Your task to perform on an android device: open a new tab in the chrome app Image 0: 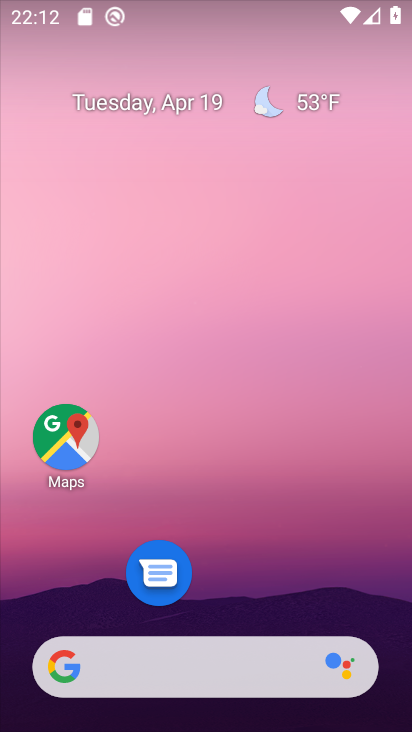
Step 0: drag from (231, 612) to (256, 205)
Your task to perform on an android device: open a new tab in the chrome app Image 1: 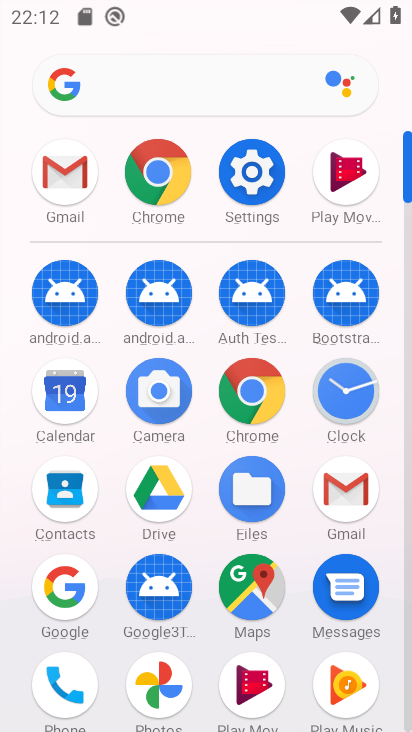
Step 1: click (161, 173)
Your task to perform on an android device: open a new tab in the chrome app Image 2: 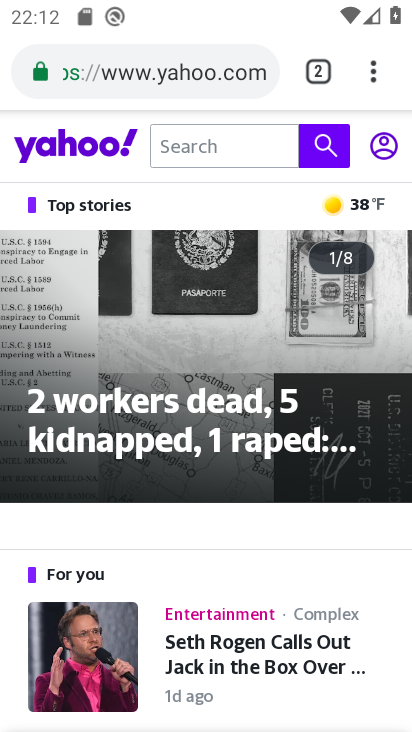
Step 2: click (369, 70)
Your task to perform on an android device: open a new tab in the chrome app Image 3: 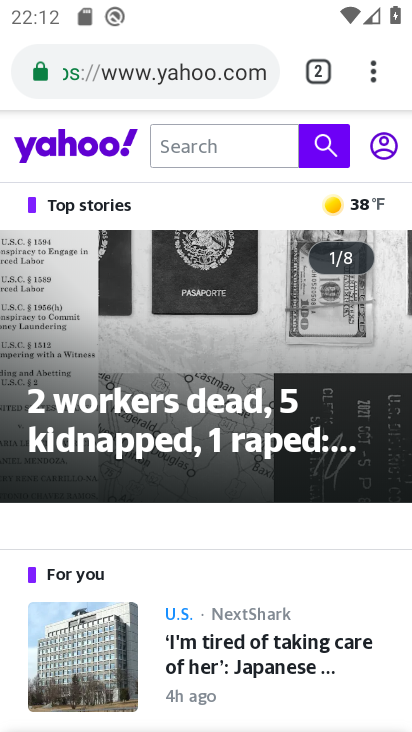
Step 3: click (369, 68)
Your task to perform on an android device: open a new tab in the chrome app Image 4: 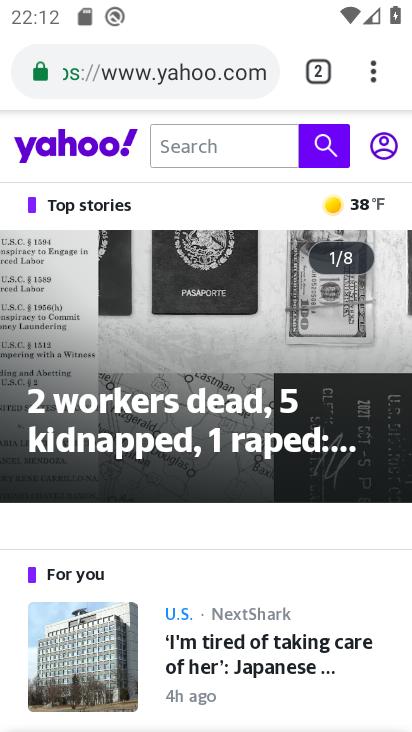
Step 4: click (376, 75)
Your task to perform on an android device: open a new tab in the chrome app Image 5: 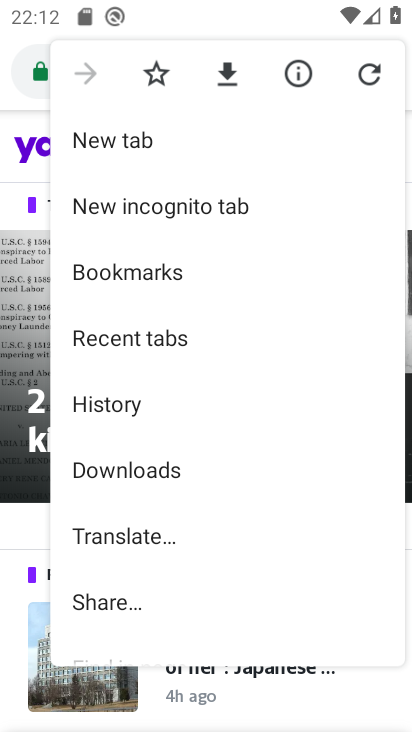
Step 5: click (164, 144)
Your task to perform on an android device: open a new tab in the chrome app Image 6: 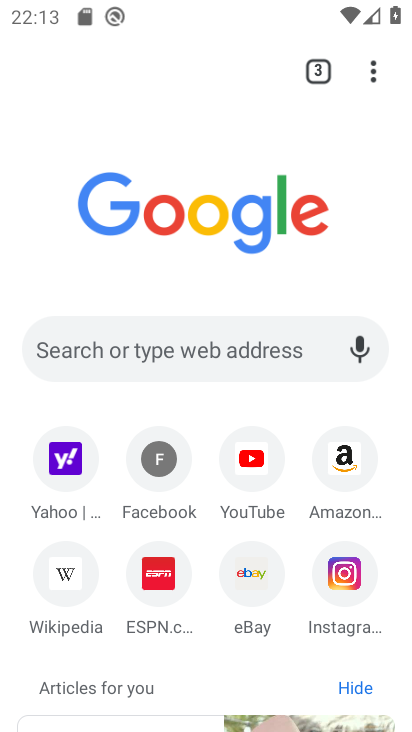
Step 6: task complete